Your task to perform on an android device: turn on the 12-hour format for clock Image 0: 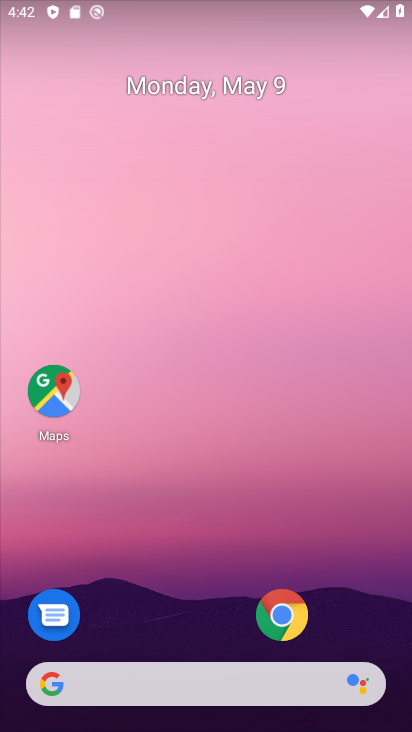
Step 0: drag from (169, 662) to (174, 260)
Your task to perform on an android device: turn on the 12-hour format for clock Image 1: 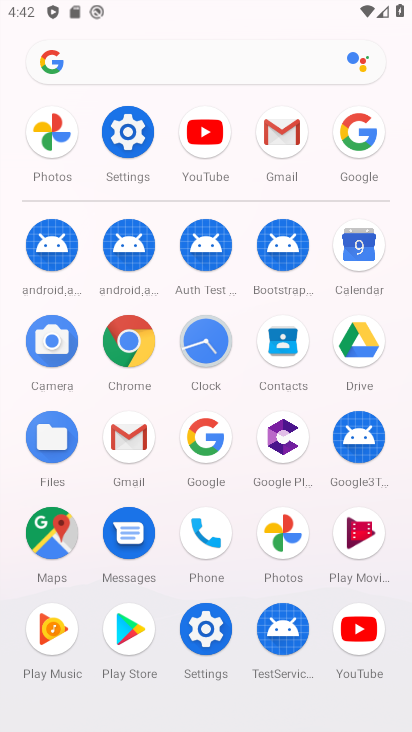
Step 1: click (202, 345)
Your task to perform on an android device: turn on the 12-hour format for clock Image 2: 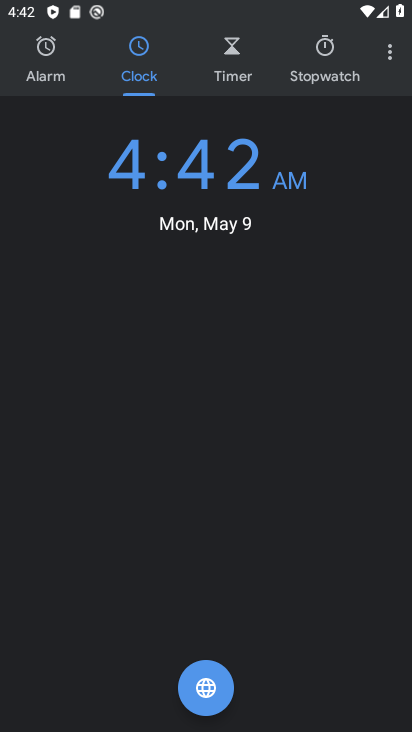
Step 2: click (388, 60)
Your task to perform on an android device: turn on the 12-hour format for clock Image 3: 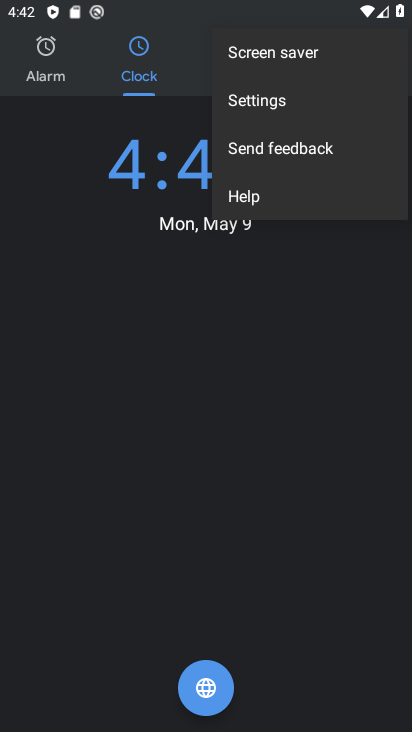
Step 3: click (289, 99)
Your task to perform on an android device: turn on the 12-hour format for clock Image 4: 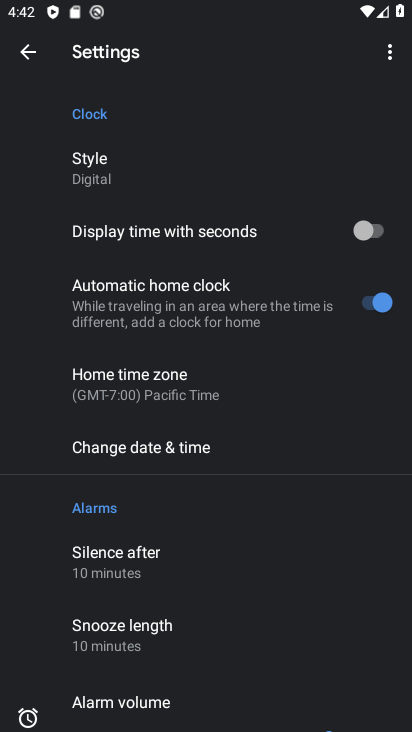
Step 4: click (135, 437)
Your task to perform on an android device: turn on the 12-hour format for clock Image 5: 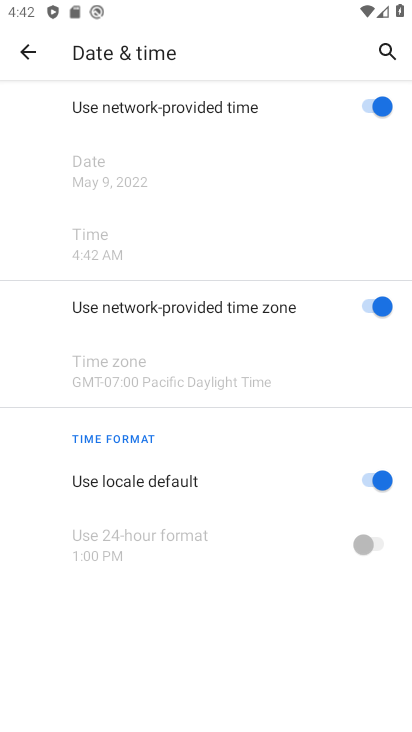
Step 5: task complete